Your task to perform on an android device: see tabs open on other devices in the chrome app Image 0: 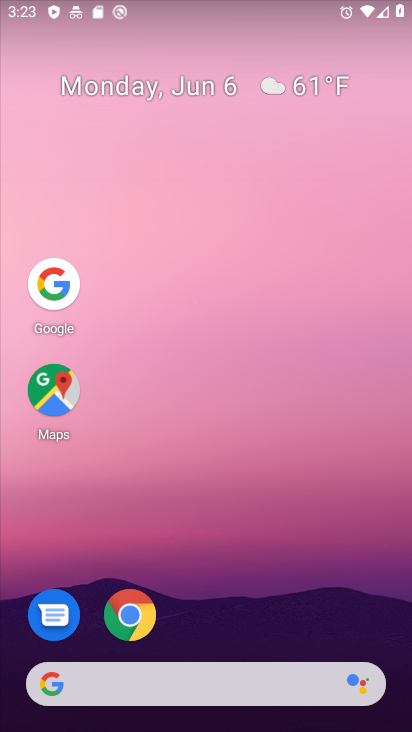
Step 0: click (141, 607)
Your task to perform on an android device: see tabs open on other devices in the chrome app Image 1: 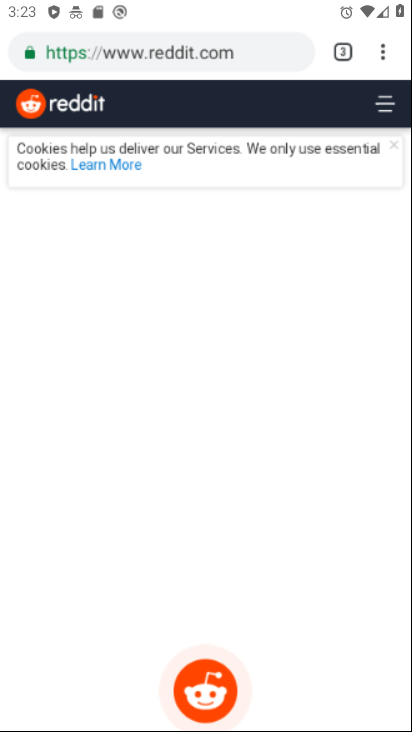
Step 1: click (389, 60)
Your task to perform on an android device: see tabs open on other devices in the chrome app Image 2: 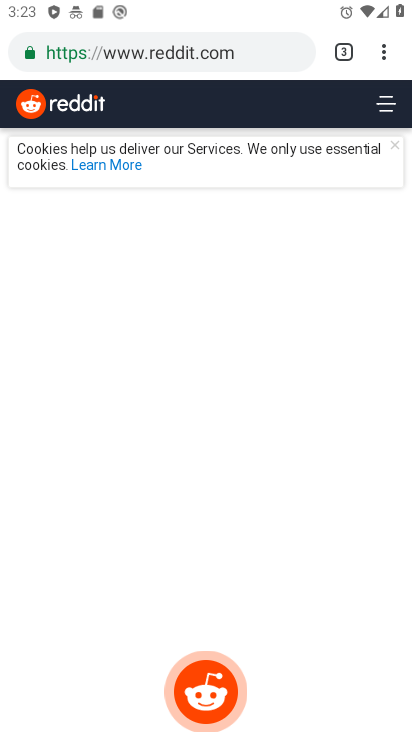
Step 2: click (395, 57)
Your task to perform on an android device: see tabs open on other devices in the chrome app Image 3: 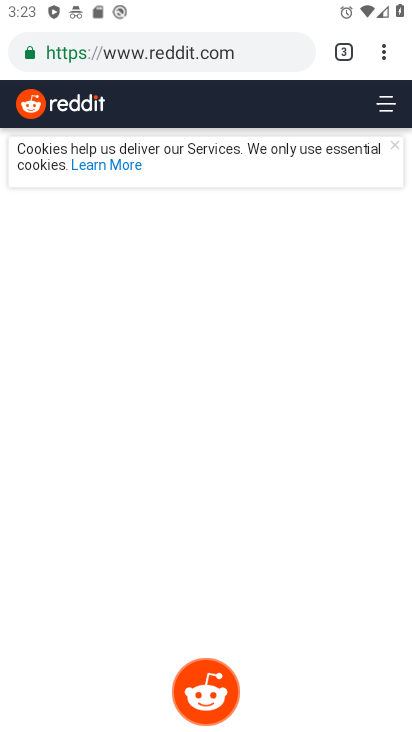
Step 3: click (382, 42)
Your task to perform on an android device: see tabs open on other devices in the chrome app Image 4: 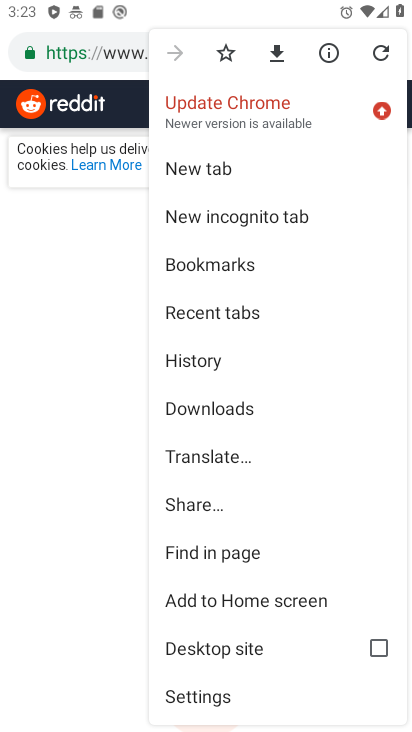
Step 4: click (249, 321)
Your task to perform on an android device: see tabs open on other devices in the chrome app Image 5: 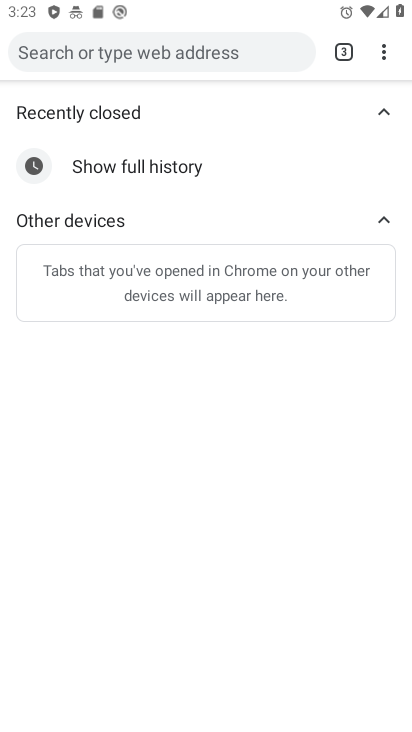
Step 5: task complete